Your task to perform on an android device: open the mobile data screen to see how much data has been used Image 0: 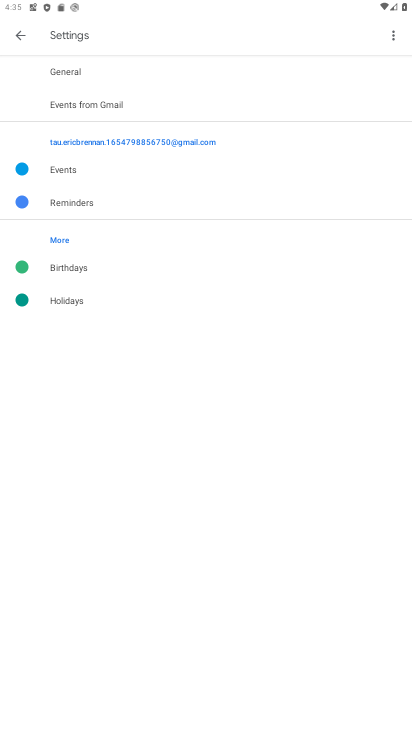
Step 0: press home button
Your task to perform on an android device: open the mobile data screen to see how much data has been used Image 1: 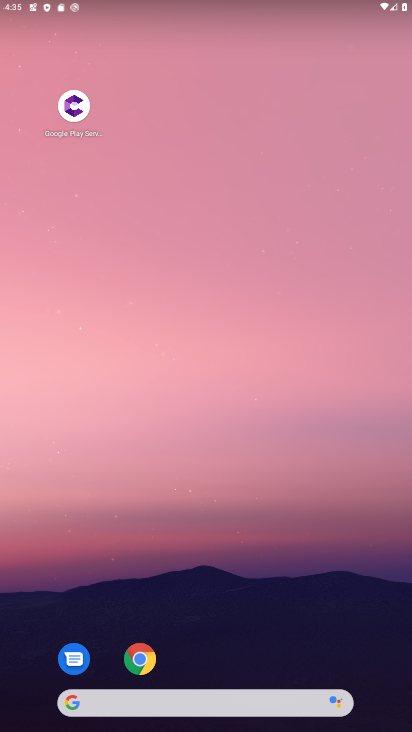
Step 1: drag from (202, 675) to (249, 47)
Your task to perform on an android device: open the mobile data screen to see how much data has been used Image 2: 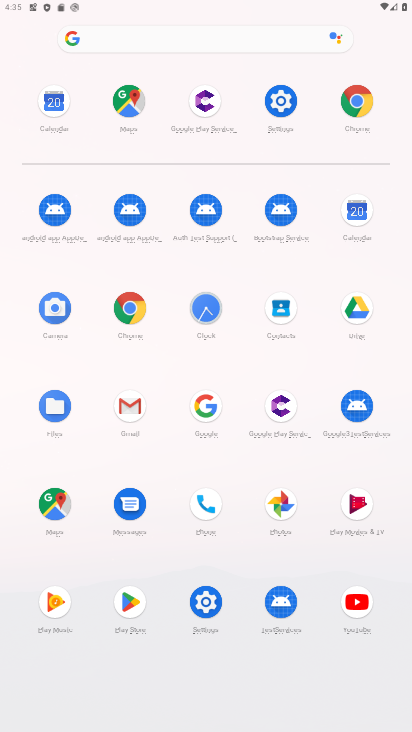
Step 2: click (276, 106)
Your task to perform on an android device: open the mobile data screen to see how much data has been used Image 3: 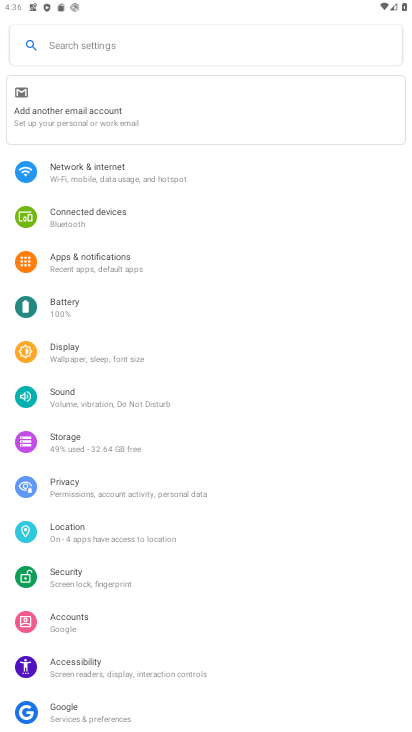
Step 3: click (112, 181)
Your task to perform on an android device: open the mobile data screen to see how much data has been used Image 4: 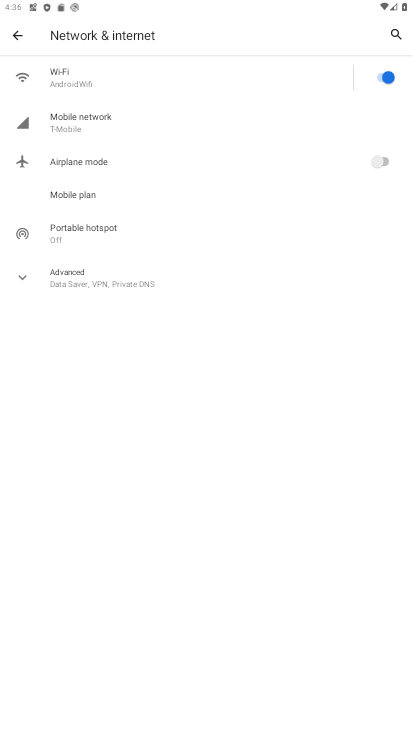
Step 4: click (107, 123)
Your task to perform on an android device: open the mobile data screen to see how much data has been used Image 5: 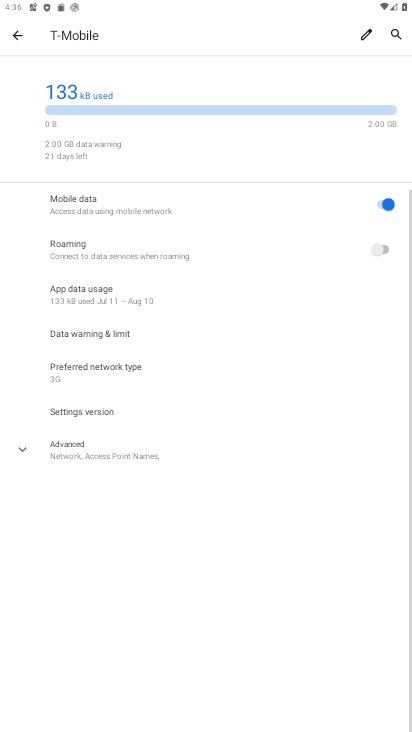
Step 5: task complete